Your task to perform on an android device: Search for a 24-inch cordless drill. Image 0: 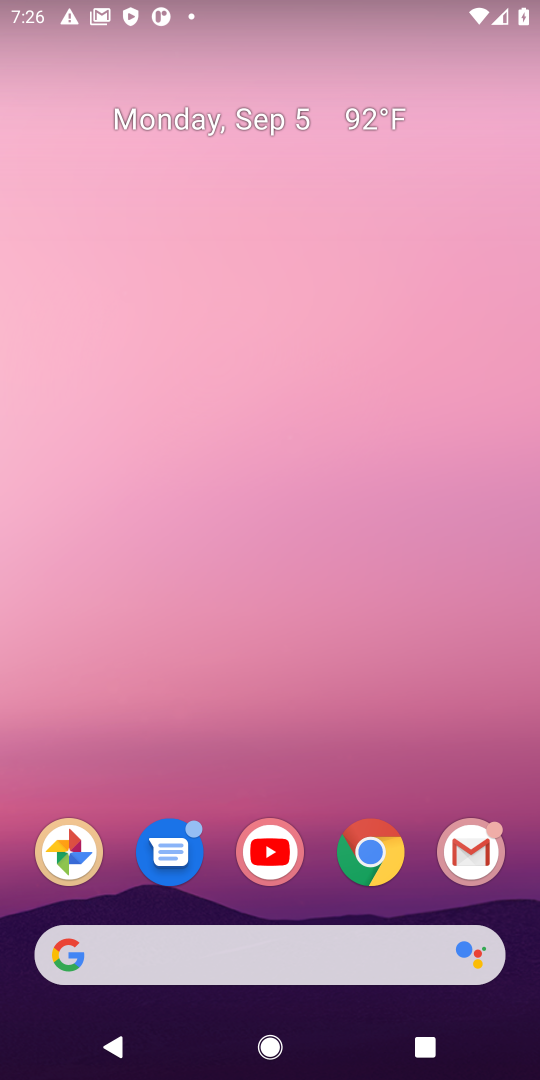
Step 0: click (357, 850)
Your task to perform on an android device: Search for a 24-inch cordless drill. Image 1: 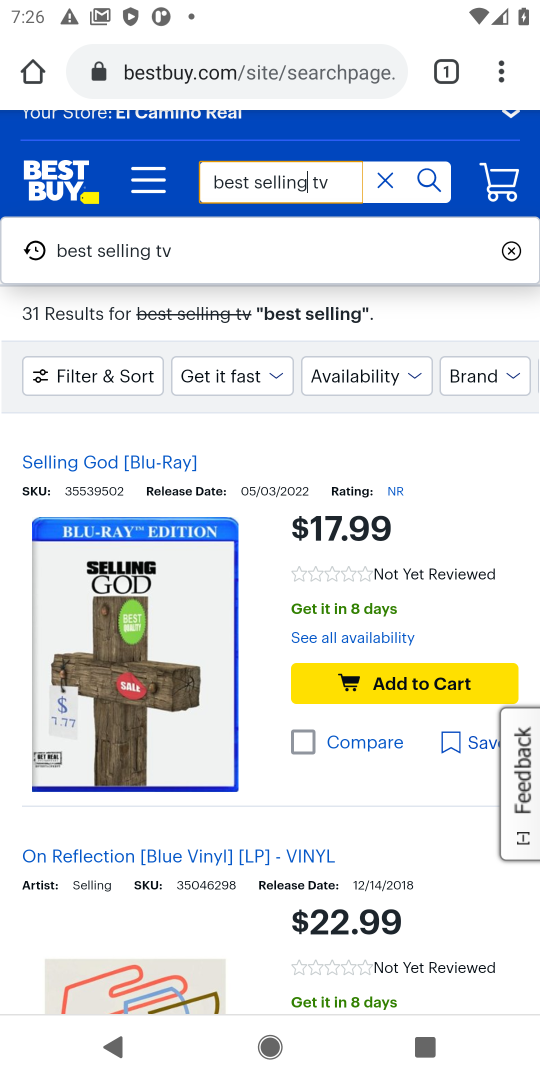
Step 1: click (231, 69)
Your task to perform on an android device: Search for a 24-inch cordless drill. Image 2: 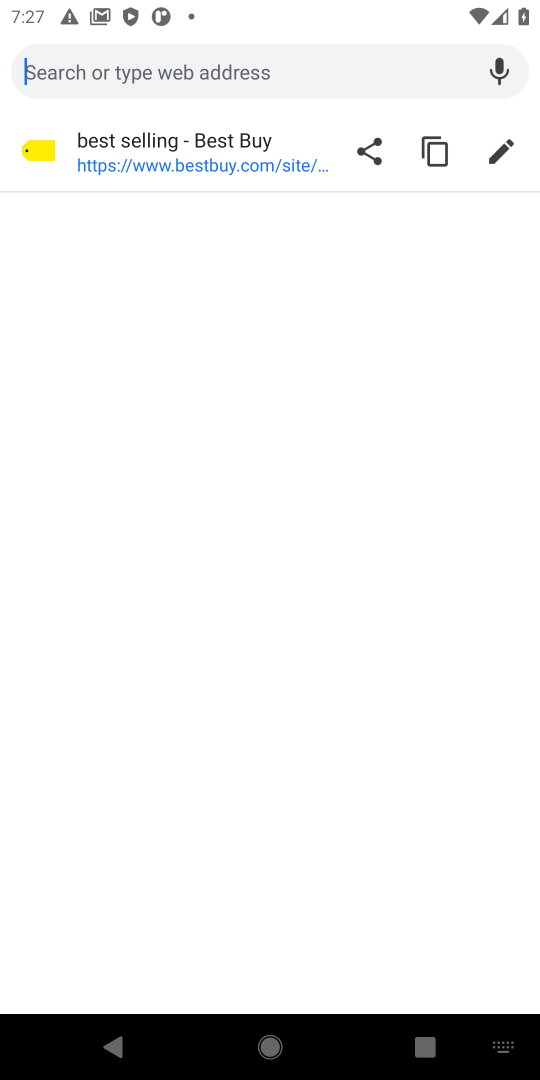
Step 2: type "24-inch cordless drill"
Your task to perform on an android device: Search for a 24-inch cordless drill. Image 3: 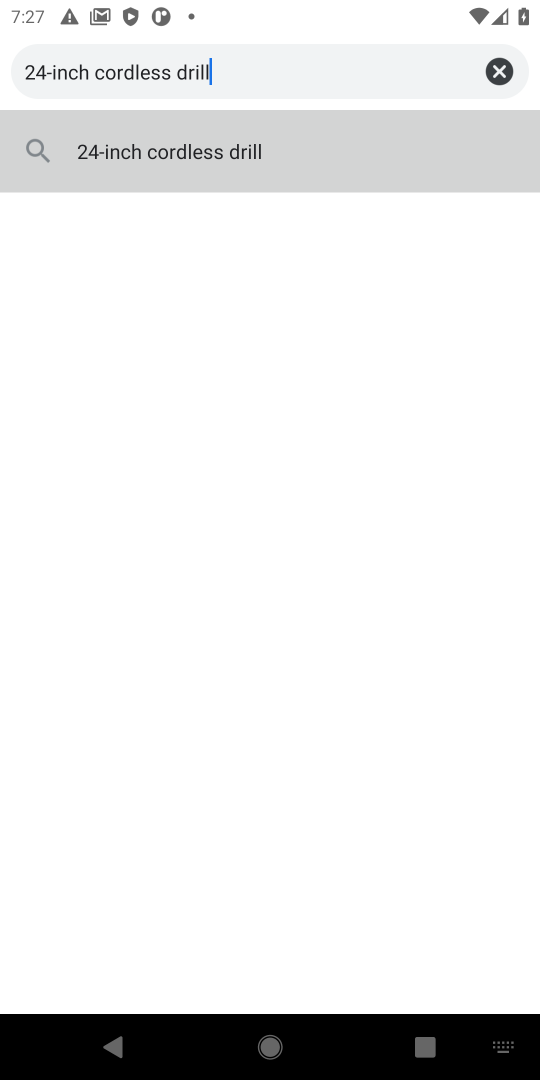
Step 3: press enter
Your task to perform on an android device: Search for a 24-inch cordless drill. Image 4: 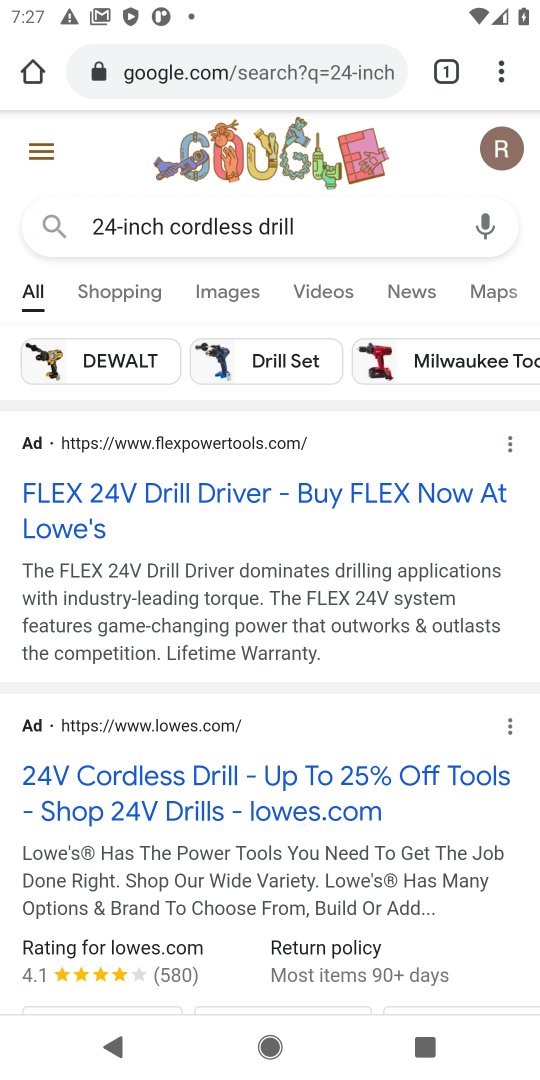
Step 4: drag from (283, 856) to (286, 542)
Your task to perform on an android device: Search for a 24-inch cordless drill. Image 5: 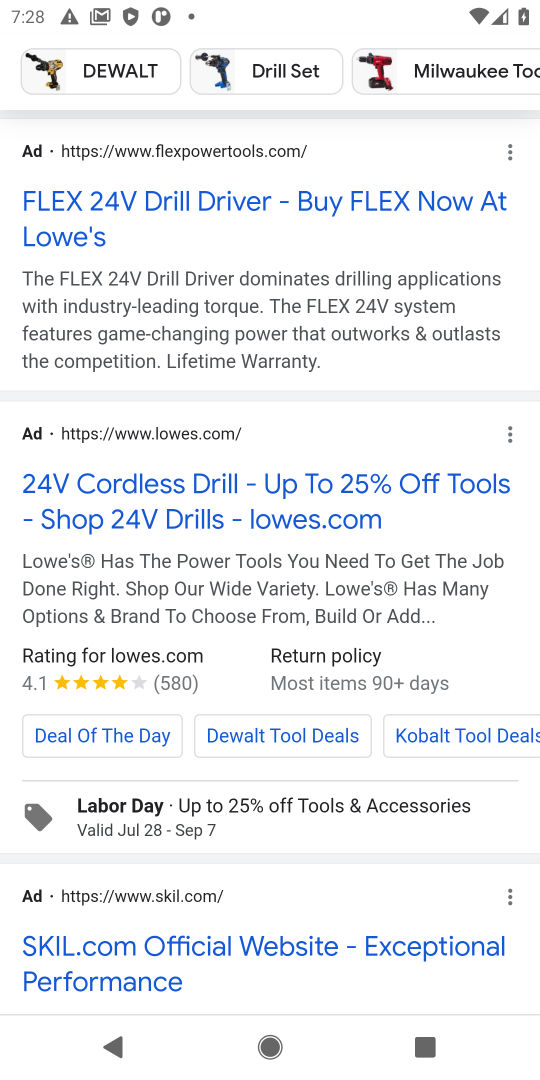
Step 5: drag from (221, 637) to (323, 841)
Your task to perform on an android device: Search for a 24-inch cordless drill. Image 6: 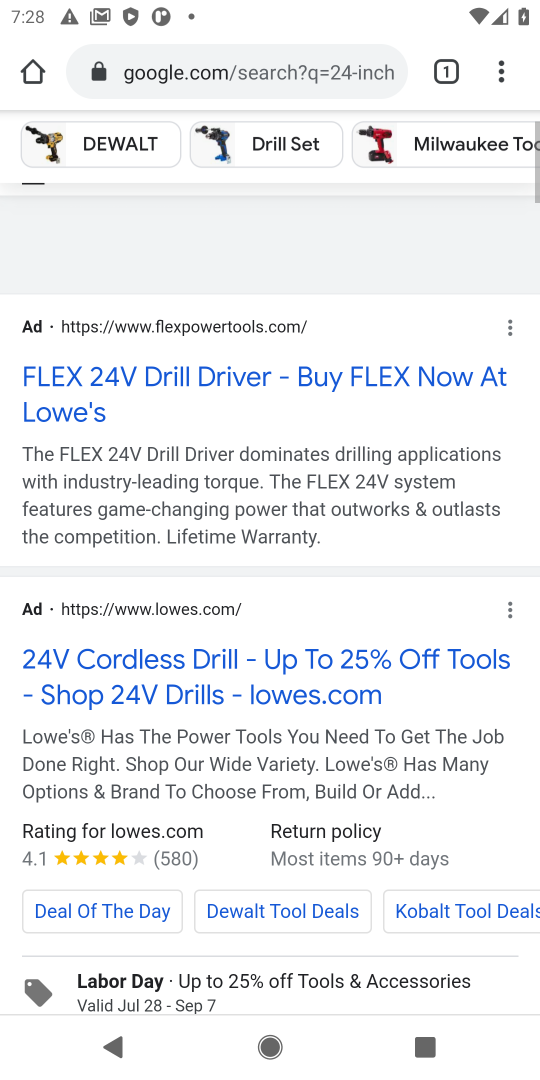
Step 6: drag from (321, 434) to (364, 777)
Your task to perform on an android device: Search for a 24-inch cordless drill. Image 7: 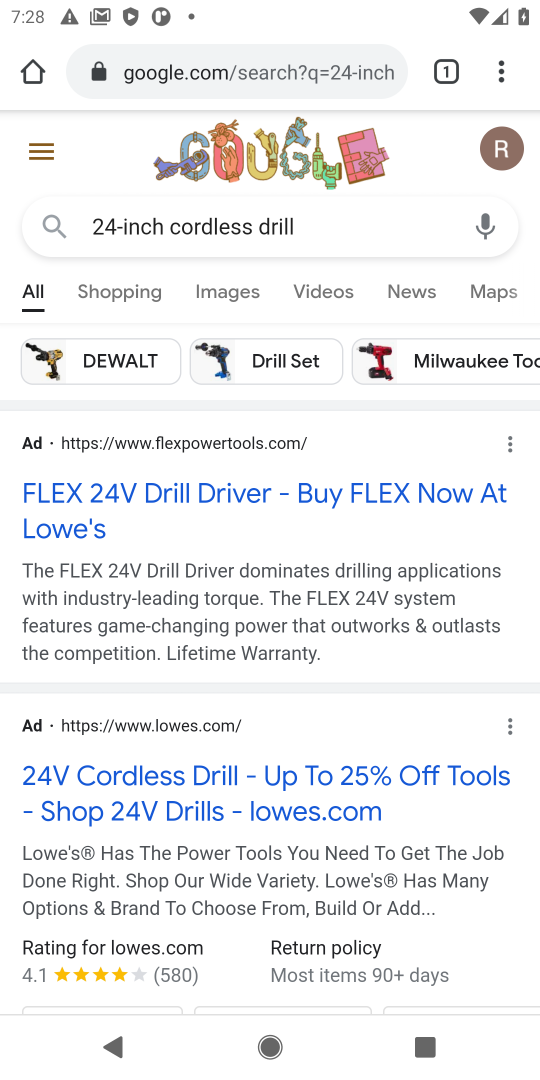
Step 7: drag from (341, 653) to (362, 495)
Your task to perform on an android device: Search for a 24-inch cordless drill. Image 8: 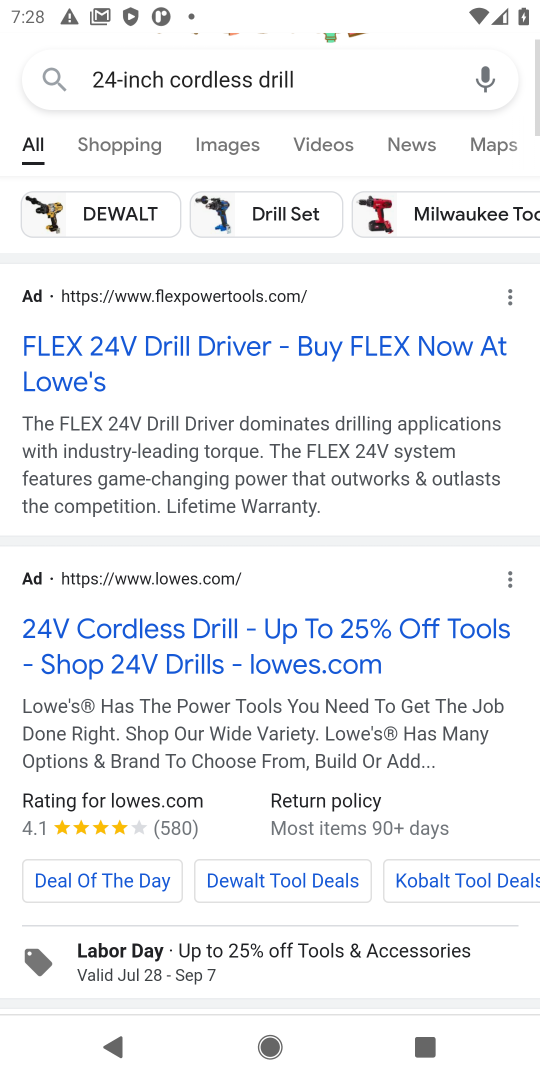
Step 8: click (375, 723)
Your task to perform on an android device: Search for a 24-inch cordless drill. Image 9: 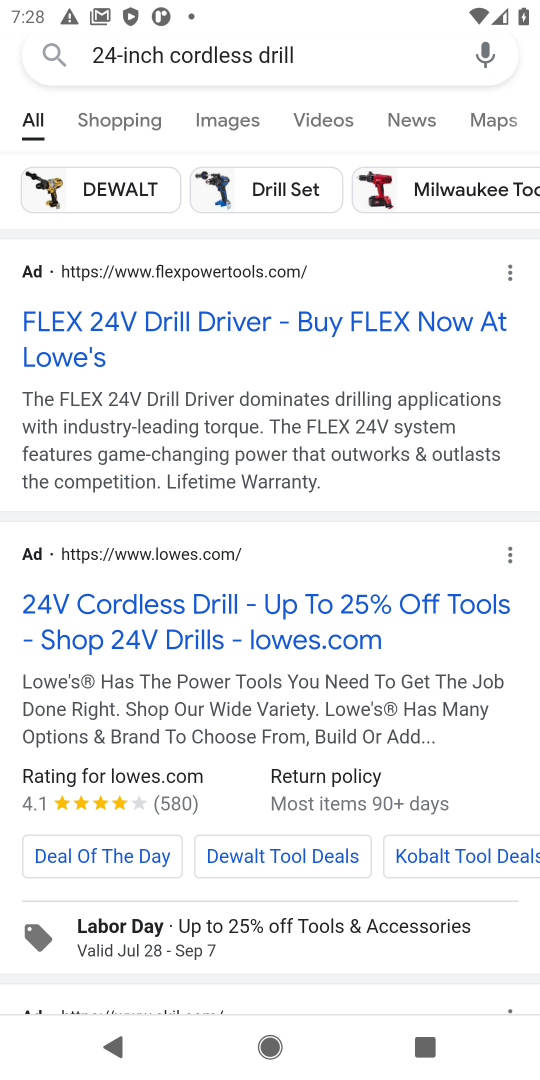
Step 9: task complete